Your task to perform on an android device: Open Chrome and go to settings Image 0: 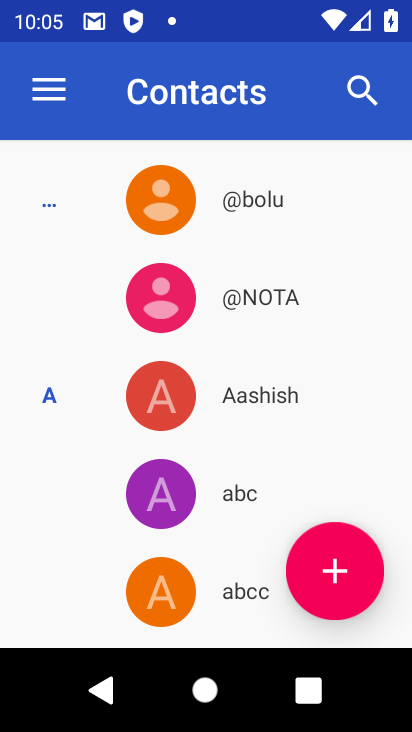
Step 0: press home button
Your task to perform on an android device: Open Chrome and go to settings Image 1: 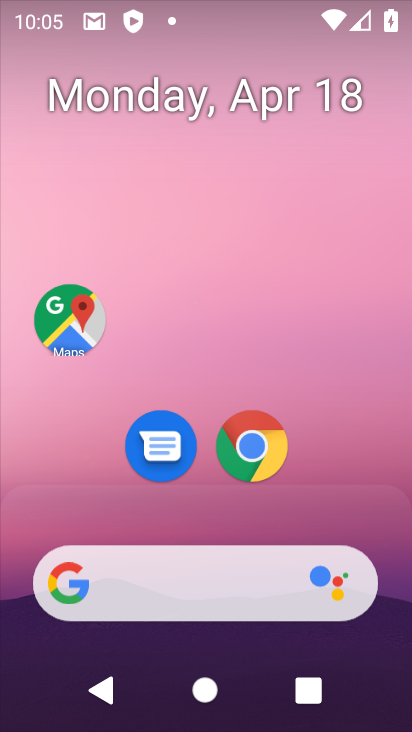
Step 1: drag from (372, 514) to (372, 58)
Your task to perform on an android device: Open Chrome and go to settings Image 2: 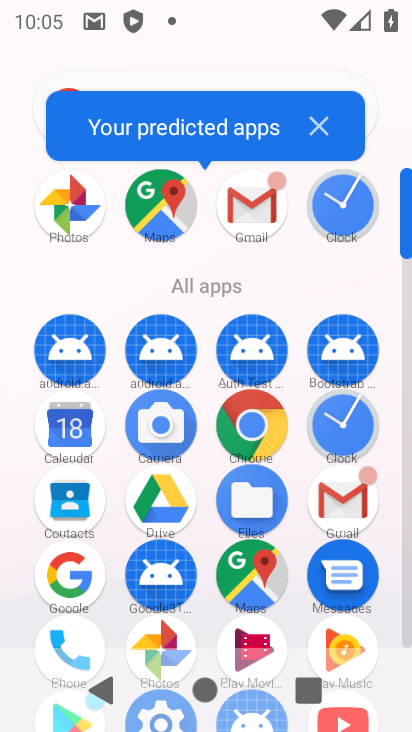
Step 2: click (246, 422)
Your task to perform on an android device: Open Chrome and go to settings Image 3: 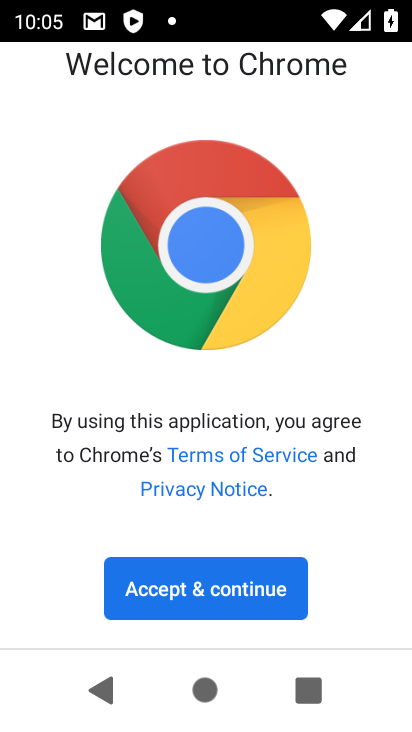
Step 3: click (258, 584)
Your task to perform on an android device: Open Chrome and go to settings Image 4: 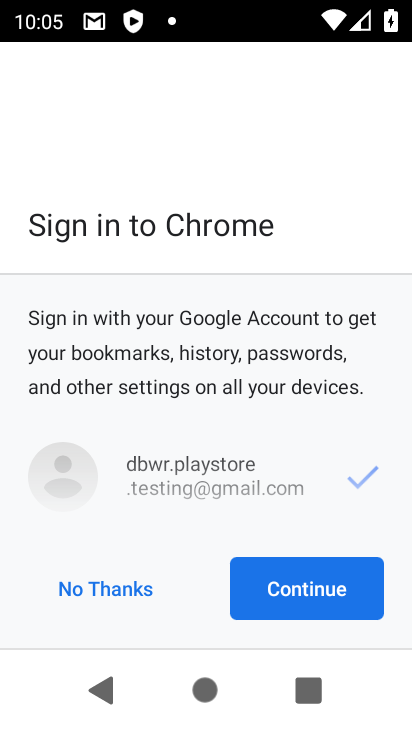
Step 4: click (325, 596)
Your task to perform on an android device: Open Chrome and go to settings Image 5: 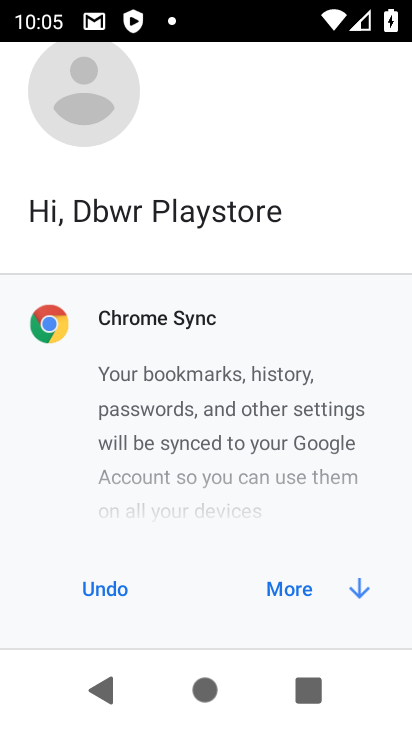
Step 5: click (316, 585)
Your task to perform on an android device: Open Chrome and go to settings Image 6: 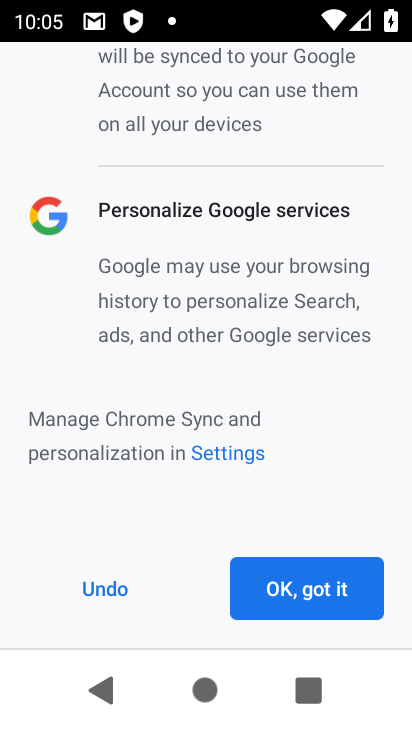
Step 6: click (305, 603)
Your task to perform on an android device: Open Chrome and go to settings Image 7: 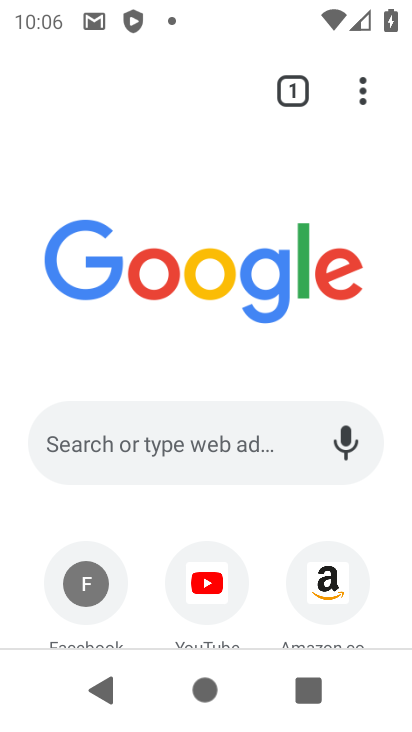
Step 7: click (366, 96)
Your task to perform on an android device: Open Chrome and go to settings Image 8: 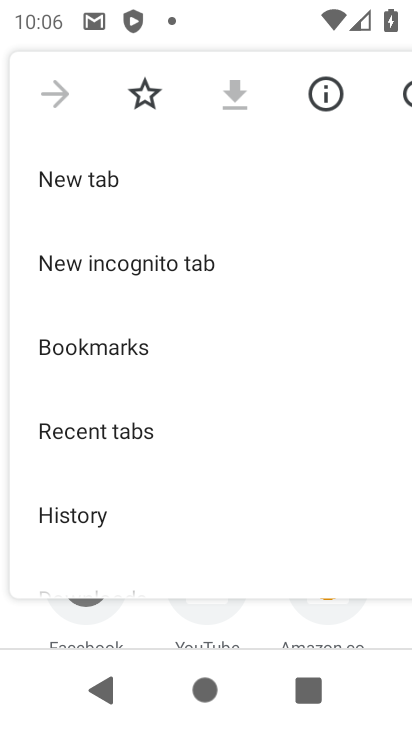
Step 8: drag from (303, 509) to (303, 227)
Your task to perform on an android device: Open Chrome and go to settings Image 9: 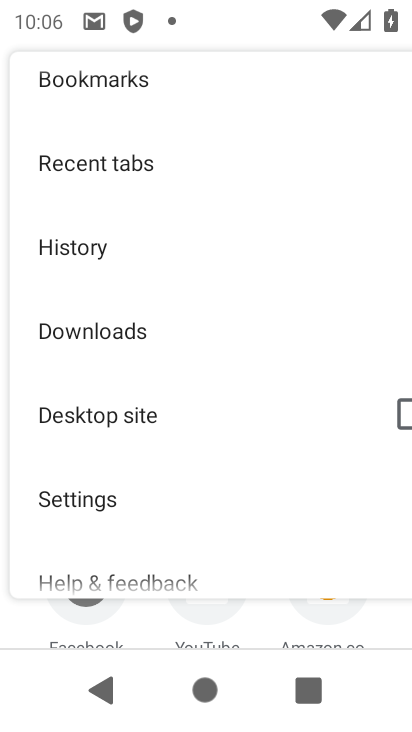
Step 9: click (98, 498)
Your task to perform on an android device: Open Chrome and go to settings Image 10: 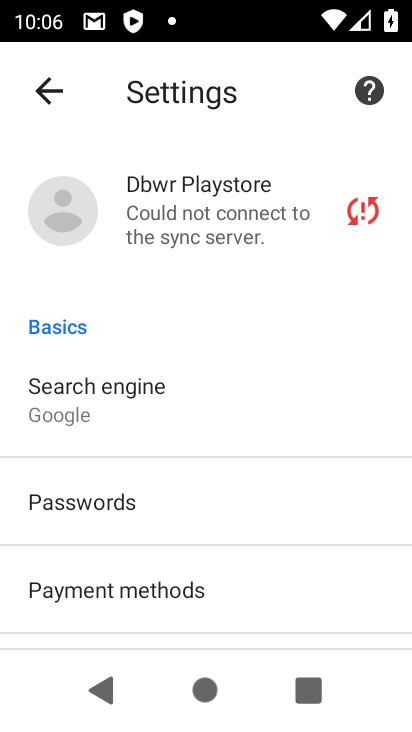
Step 10: task complete